Your task to perform on an android device: make emails show in primary in the gmail app Image 0: 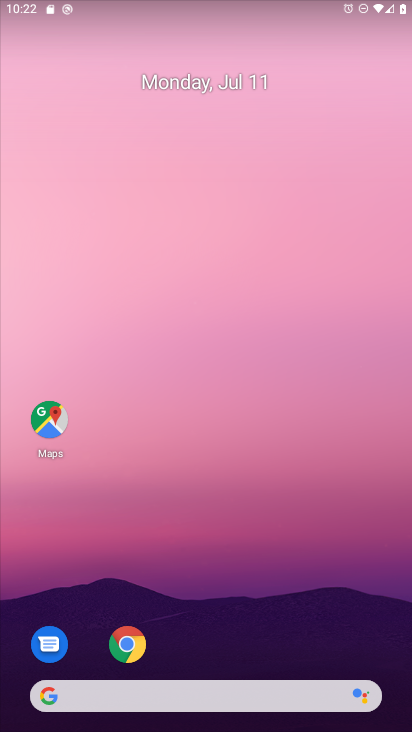
Step 0: click (165, 338)
Your task to perform on an android device: make emails show in primary in the gmail app Image 1: 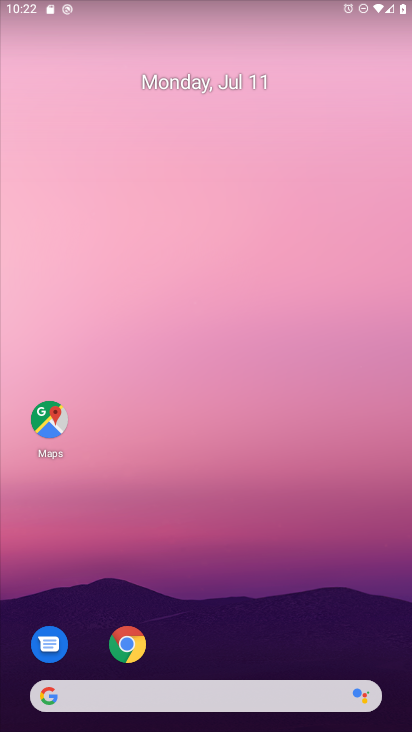
Step 1: drag from (230, 242) to (230, 134)
Your task to perform on an android device: make emails show in primary in the gmail app Image 2: 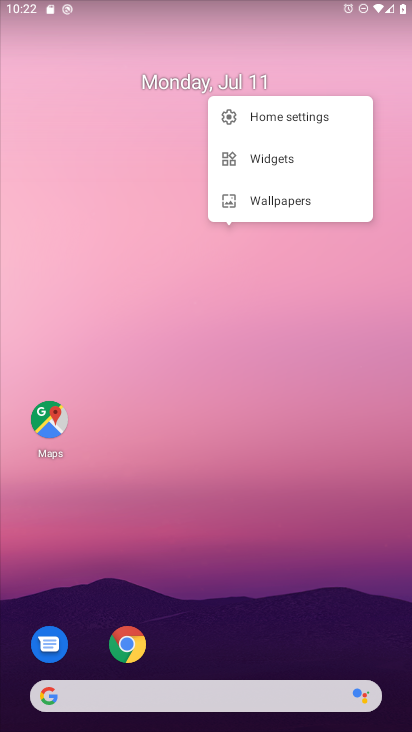
Step 2: drag from (232, 559) to (187, 185)
Your task to perform on an android device: make emails show in primary in the gmail app Image 3: 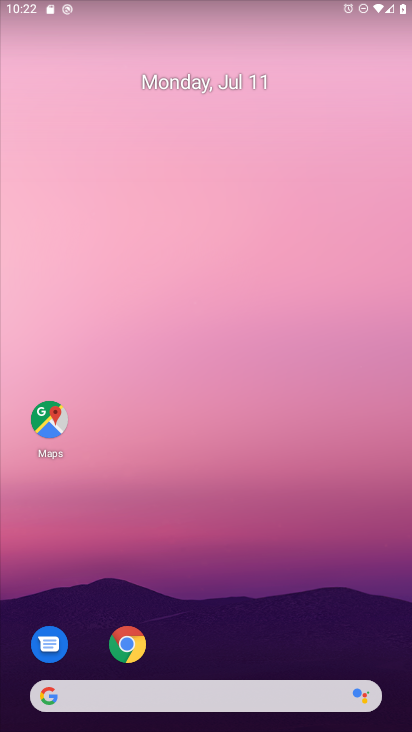
Step 3: drag from (166, 677) to (167, 237)
Your task to perform on an android device: make emails show in primary in the gmail app Image 4: 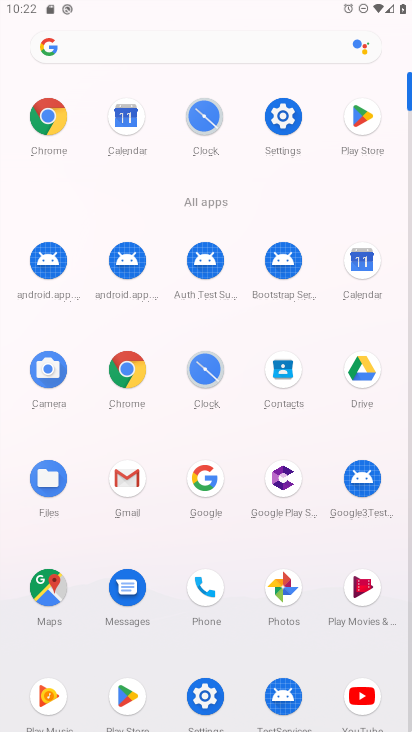
Step 4: click (130, 486)
Your task to perform on an android device: make emails show in primary in the gmail app Image 5: 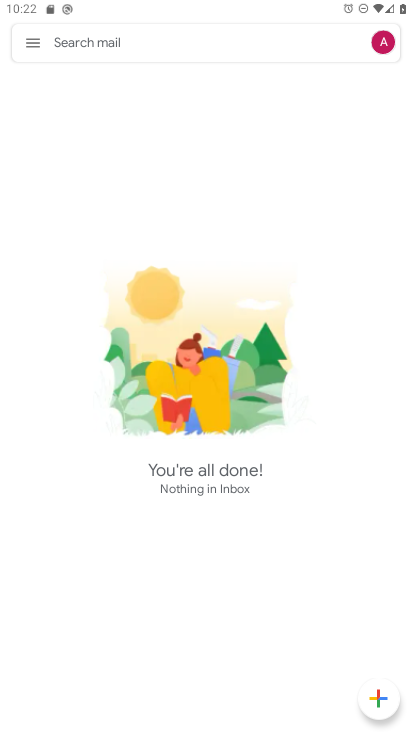
Step 5: click (38, 39)
Your task to perform on an android device: make emails show in primary in the gmail app Image 6: 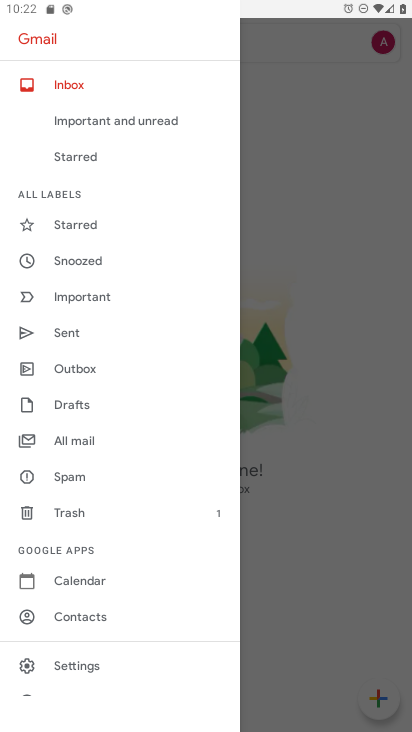
Step 6: click (71, 668)
Your task to perform on an android device: make emails show in primary in the gmail app Image 7: 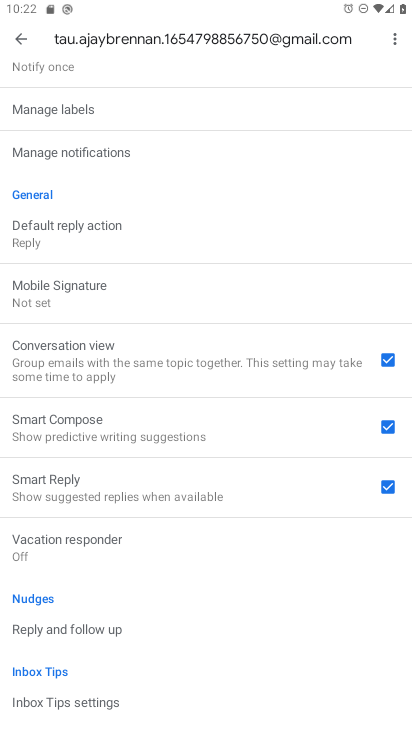
Step 7: drag from (62, 131) to (85, 505)
Your task to perform on an android device: make emails show in primary in the gmail app Image 8: 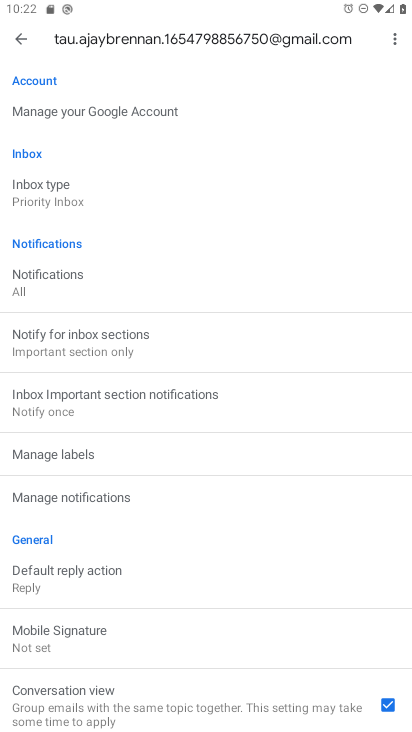
Step 8: drag from (81, 321) to (82, 470)
Your task to perform on an android device: make emails show in primary in the gmail app Image 9: 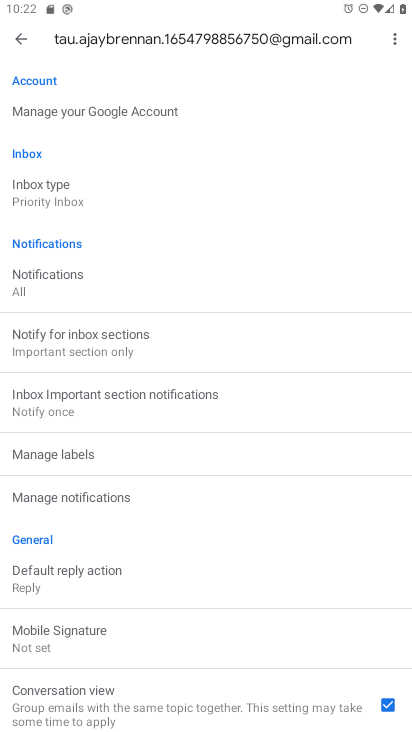
Step 9: click (39, 205)
Your task to perform on an android device: make emails show in primary in the gmail app Image 10: 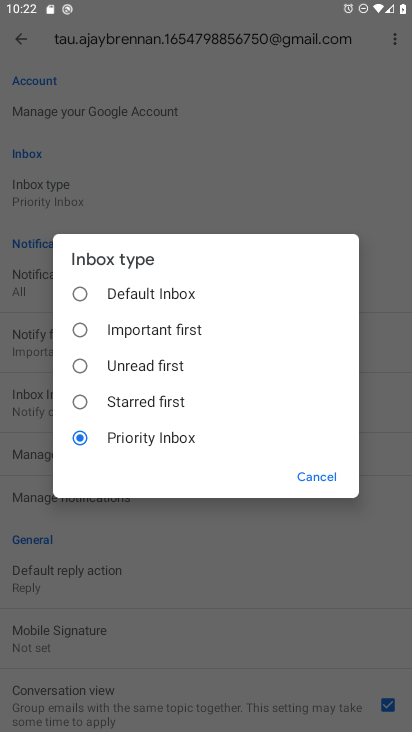
Step 10: click (122, 292)
Your task to perform on an android device: make emails show in primary in the gmail app Image 11: 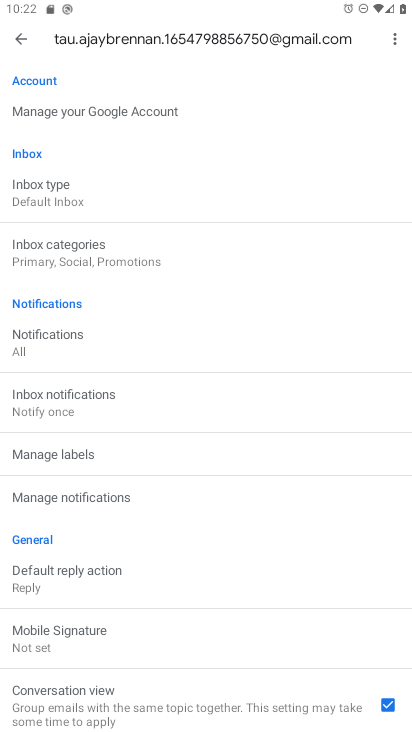
Step 11: click (62, 255)
Your task to perform on an android device: make emails show in primary in the gmail app Image 12: 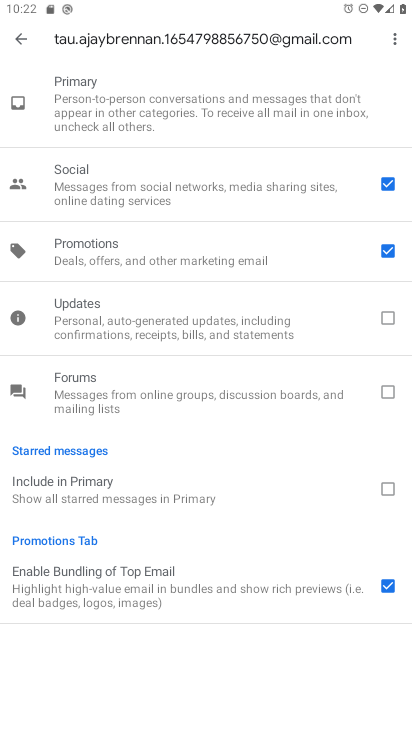
Step 12: click (388, 251)
Your task to perform on an android device: make emails show in primary in the gmail app Image 13: 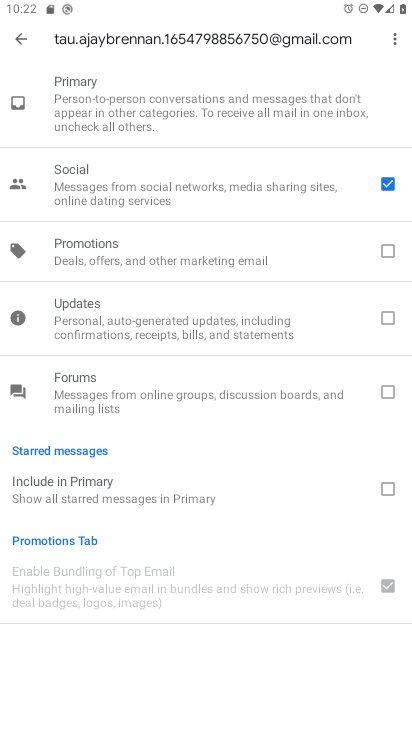
Step 13: click (388, 180)
Your task to perform on an android device: make emails show in primary in the gmail app Image 14: 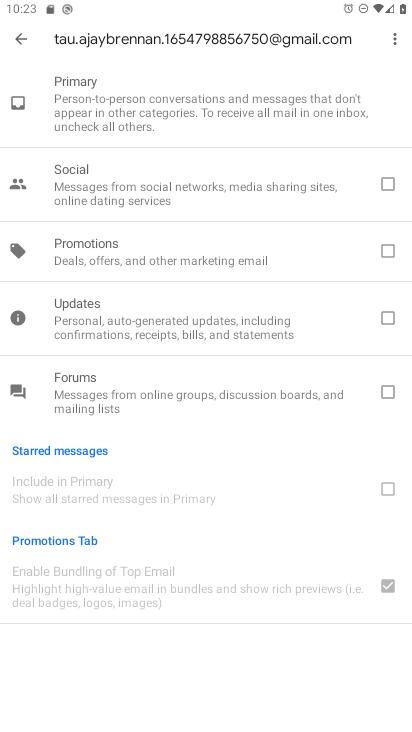
Step 14: click (25, 37)
Your task to perform on an android device: make emails show in primary in the gmail app Image 15: 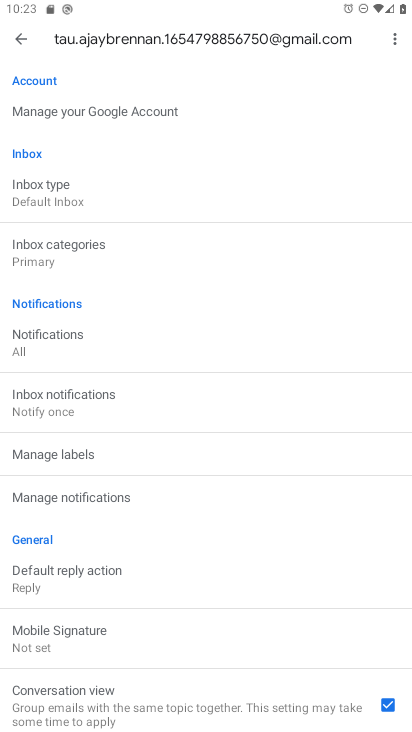
Step 15: task complete